Your task to perform on an android device: set the stopwatch Image 0: 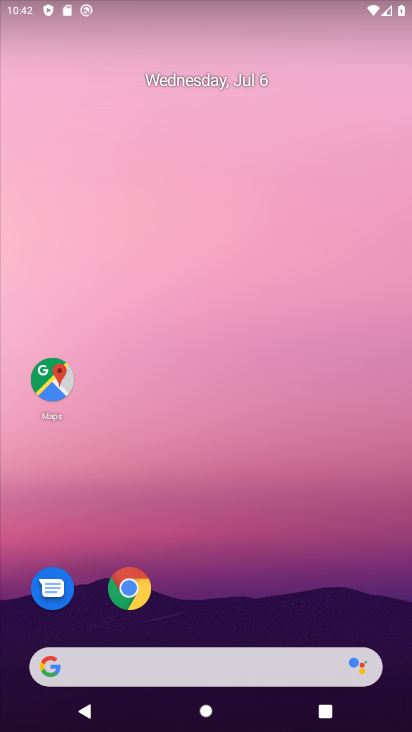
Step 0: drag from (252, 672) to (205, 116)
Your task to perform on an android device: set the stopwatch Image 1: 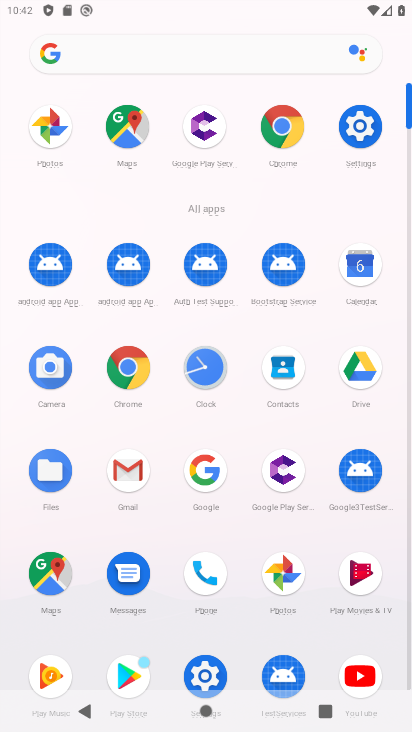
Step 1: click (214, 362)
Your task to perform on an android device: set the stopwatch Image 2: 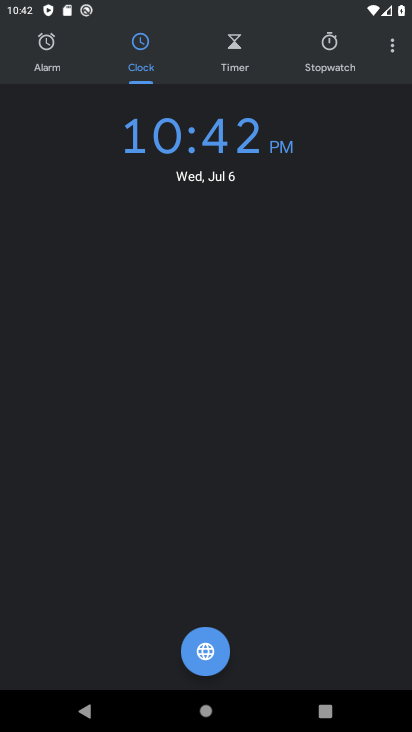
Step 2: click (323, 38)
Your task to perform on an android device: set the stopwatch Image 3: 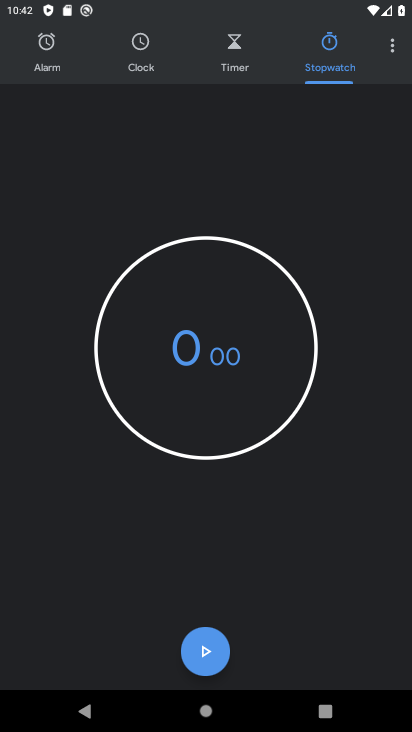
Step 3: click (221, 424)
Your task to perform on an android device: set the stopwatch Image 4: 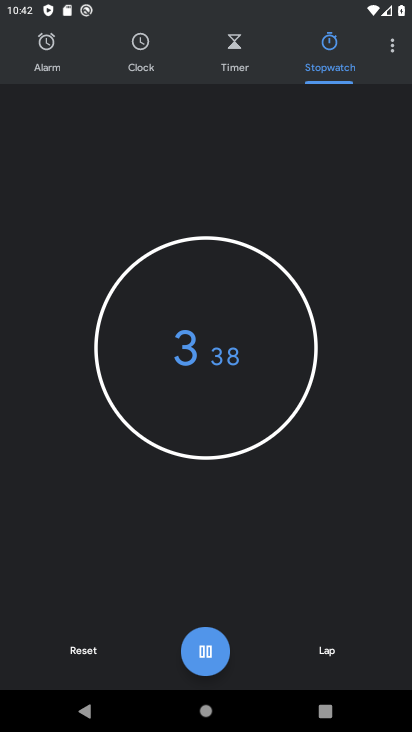
Step 4: type "767"
Your task to perform on an android device: set the stopwatch Image 5: 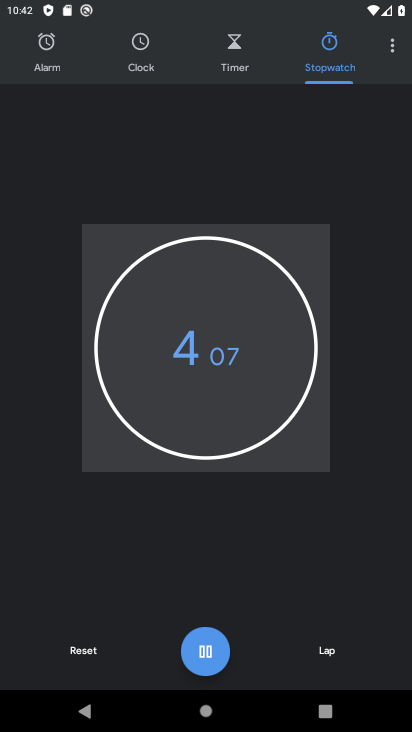
Step 5: type ""
Your task to perform on an android device: set the stopwatch Image 6: 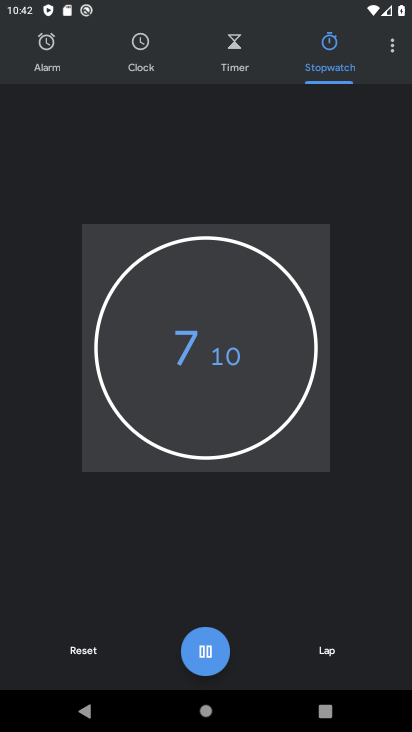
Step 6: task complete